Your task to perform on an android device: Go to Yahoo.com Image 0: 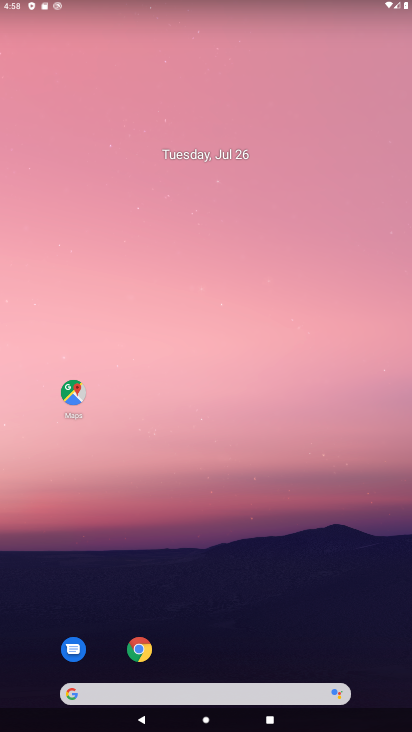
Step 0: click (136, 652)
Your task to perform on an android device: Go to Yahoo.com Image 1: 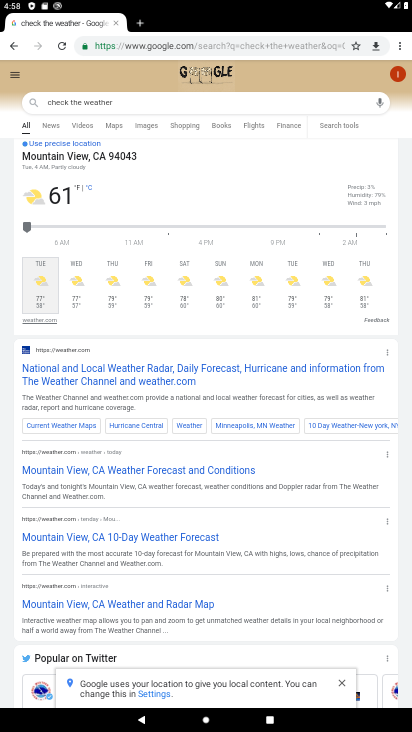
Step 1: click (139, 25)
Your task to perform on an android device: Go to Yahoo.com Image 2: 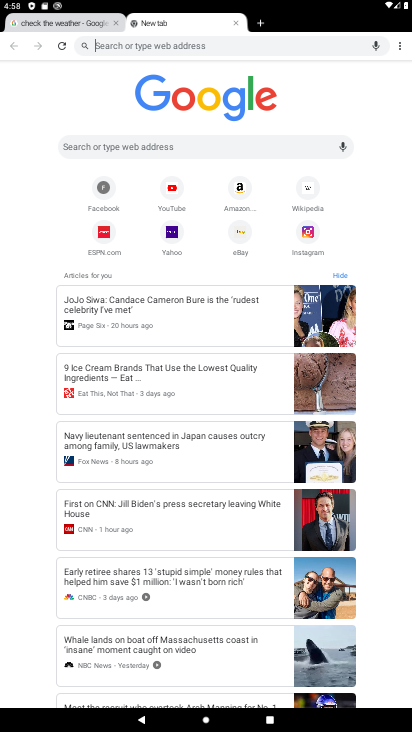
Step 2: click (175, 239)
Your task to perform on an android device: Go to Yahoo.com Image 3: 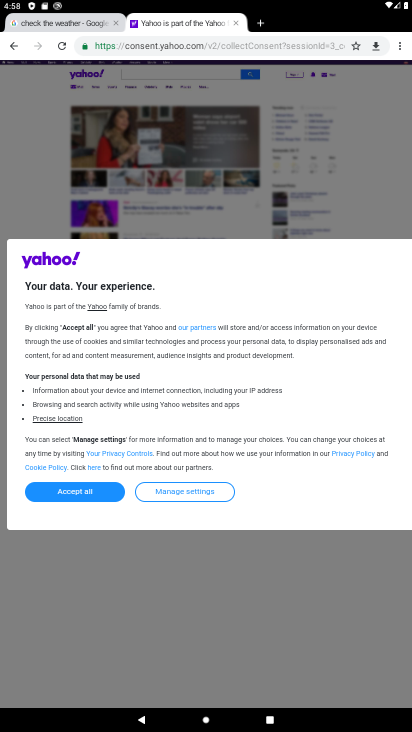
Step 3: task complete